Your task to perform on an android device: set the timer Image 0: 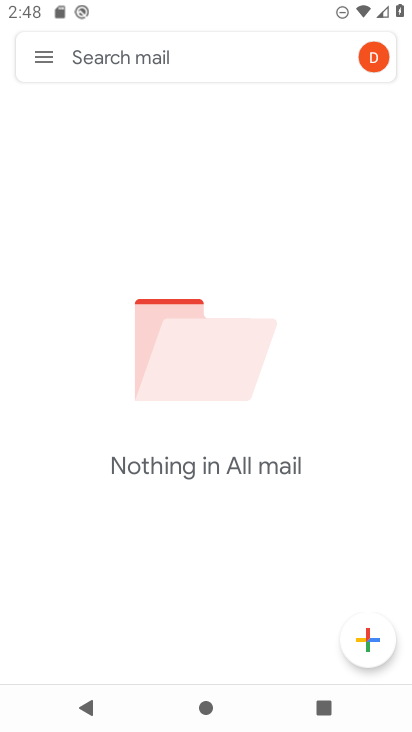
Step 0: press home button
Your task to perform on an android device: set the timer Image 1: 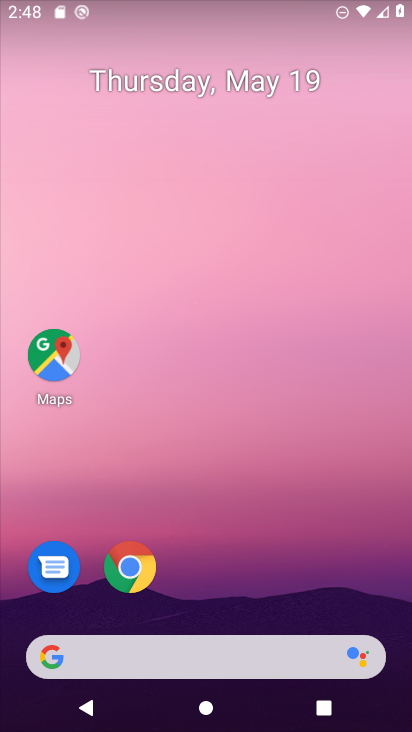
Step 1: drag from (254, 555) to (233, 60)
Your task to perform on an android device: set the timer Image 2: 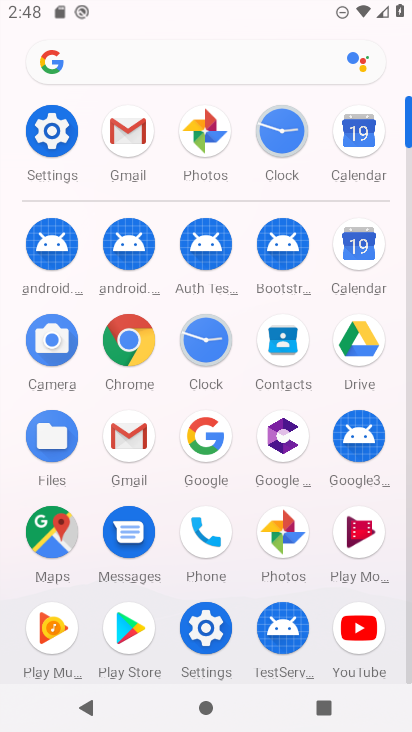
Step 2: click (278, 130)
Your task to perform on an android device: set the timer Image 3: 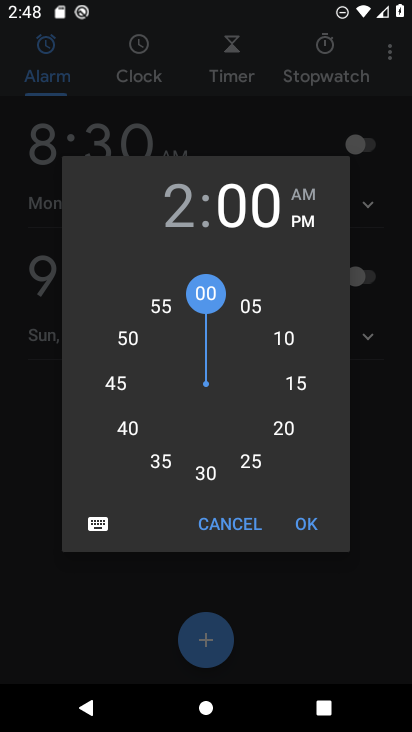
Step 3: click (306, 520)
Your task to perform on an android device: set the timer Image 4: 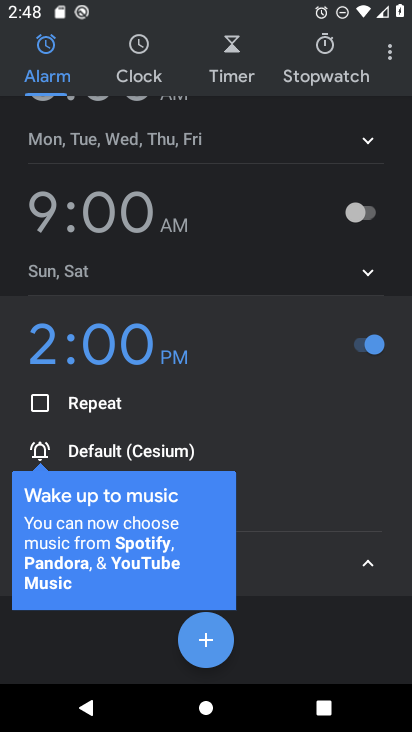
Step 4: click (234, 64)
Your task to perform on an android device: set the timer Image 5: 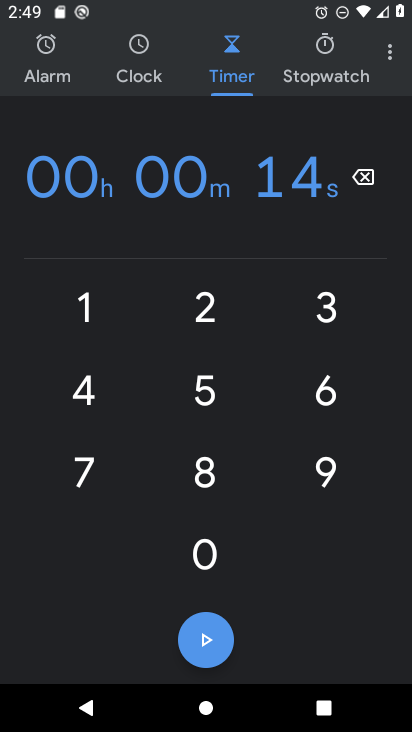
Step 5: click (367, 175)
Your task to perform on an android device: set the timer Image 6: 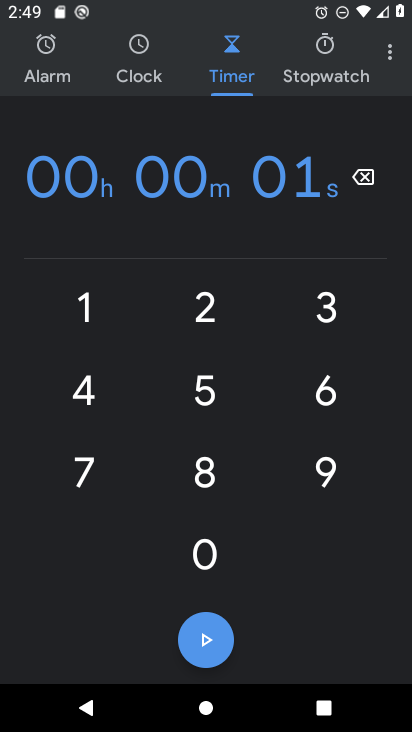
Step 6: task complete